Your task to perform on an android device: What is the news today? Image 0: 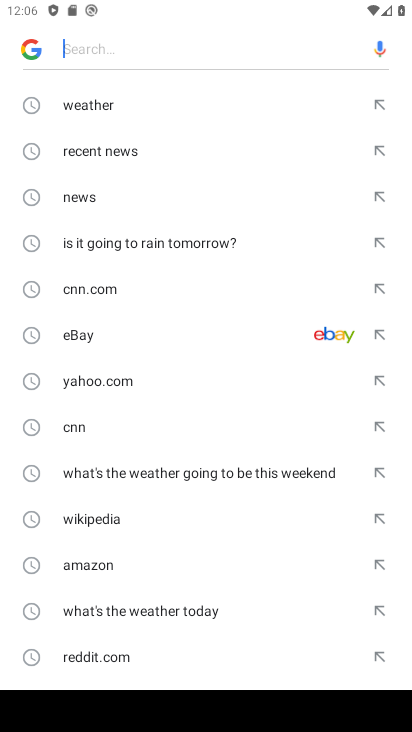
Step 0: press home button
Your task to perform on an android device: What is the news today? Image 1: 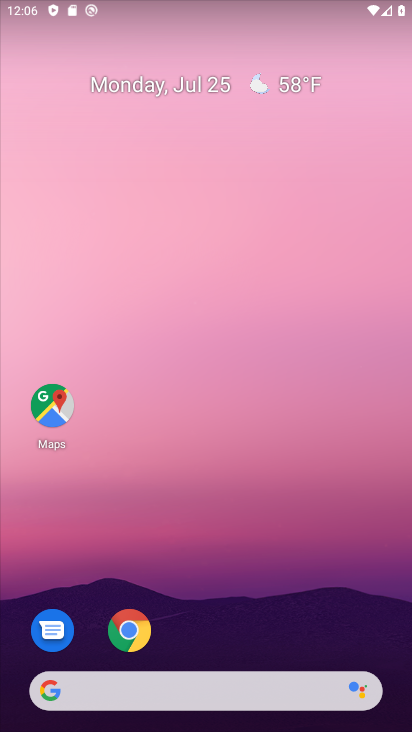
Step 1: drag from (314, 611) to (212, 84)
Your task to perform on an android device: What is the news today? Image 2: 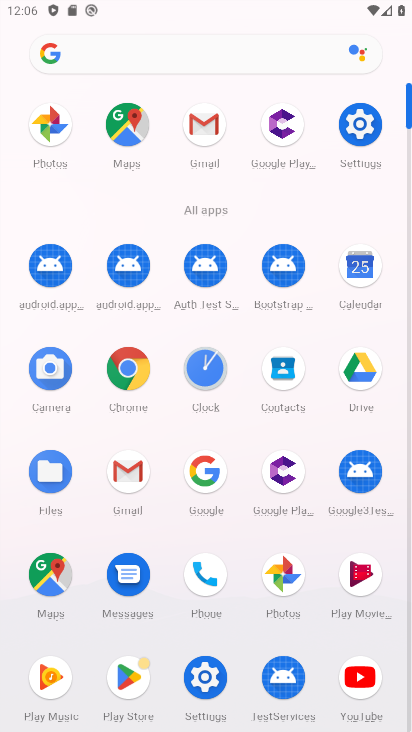
Step 2: click (145, 375)
Your task to perform on an android device: What is the news today? Image 3: 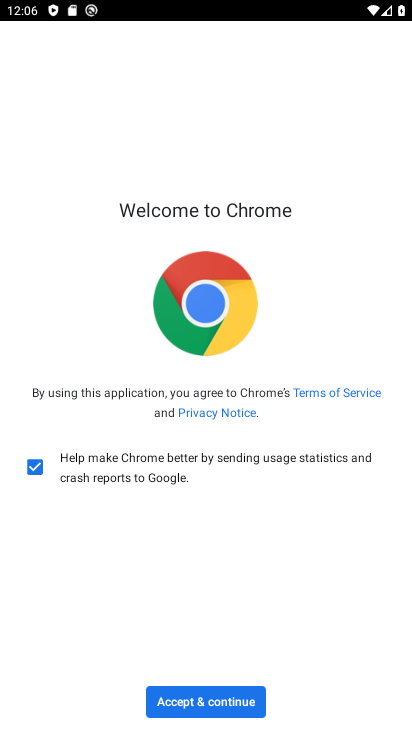
Step 3: click (248, 675)
Your task to perform on an android device: What is the news today? Image 4: 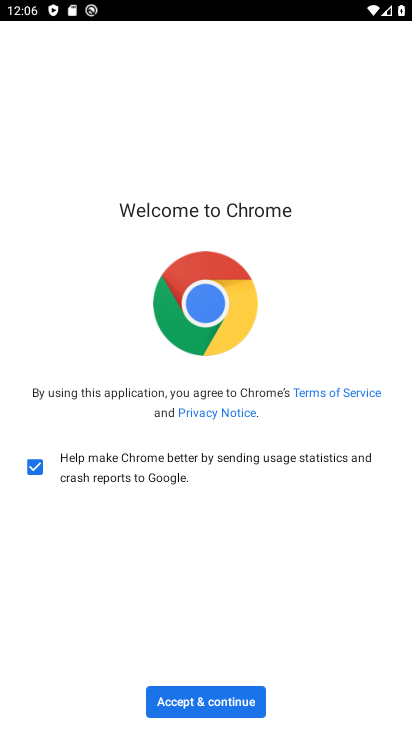
Step 4: click (244, 701)
Your task to perform on an android device: What is the news today? Image 5: 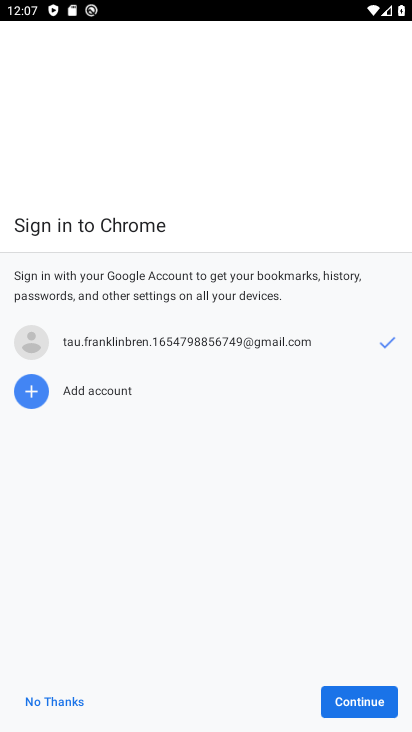
Step 5: click (70, 702)
Your task to perform on an android device: What is the news today? Image 6: 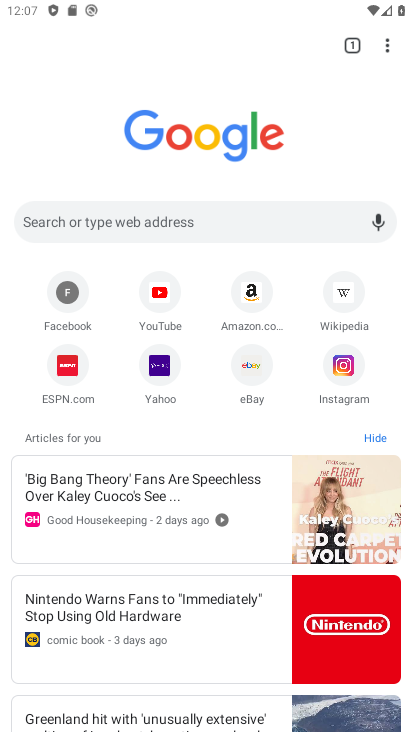
Step 6: task complete